Your task to perform on an android device: turn off data saver in the chrome app Image 0: 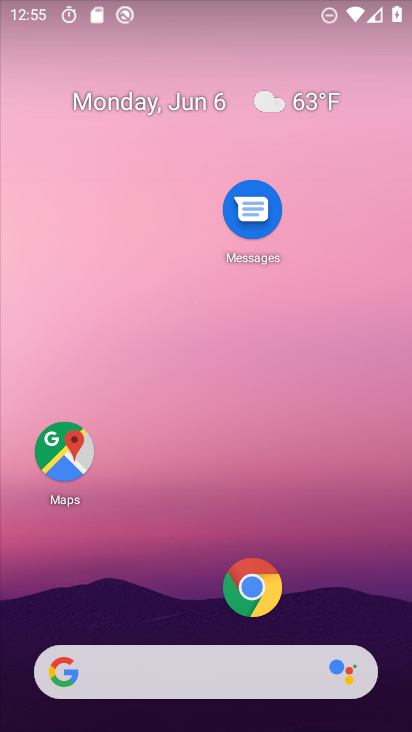
Step 0: click (250, 594)
Your task to perform on an android device: turn off data saver in the chrome app Image 1: 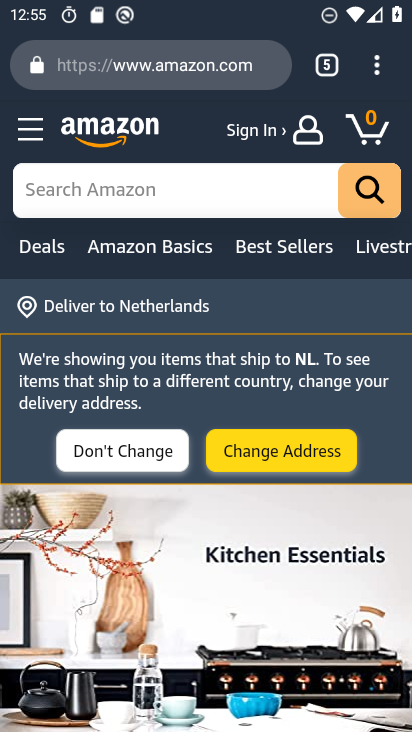
Step 1: click (390, 53)
Your task to perform on an android device: turn off data saver in the chrome app Image 2: 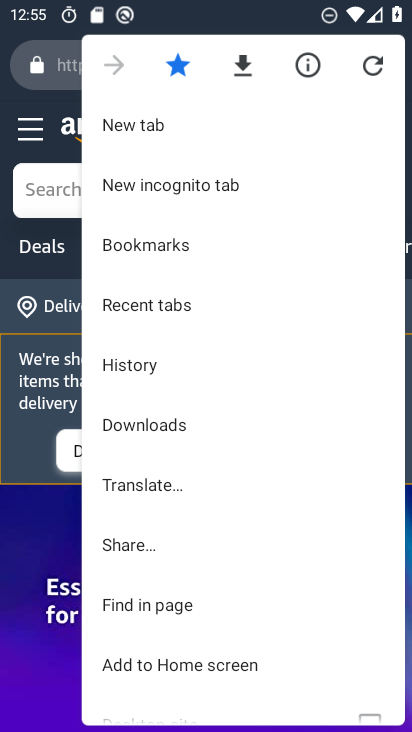
Step 2: drag from (152, 620) to (225, 48)
Your task to perform on an android device: turn off data saver in the chrome app Image 3: 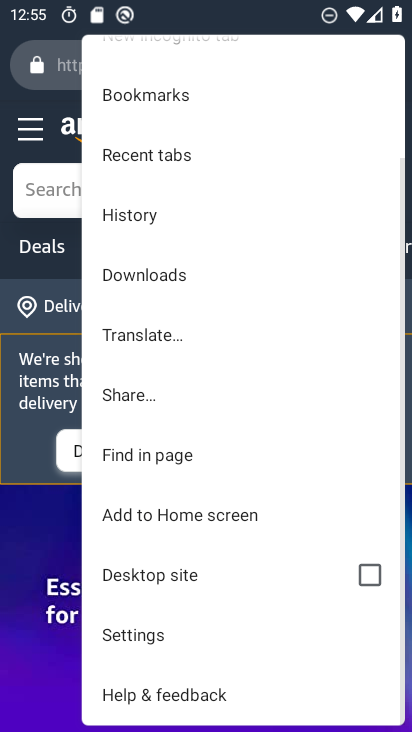
Step 3: click (122, 631)
Your task to perform on an android device: turn off data saver in the chrome app Image 4: 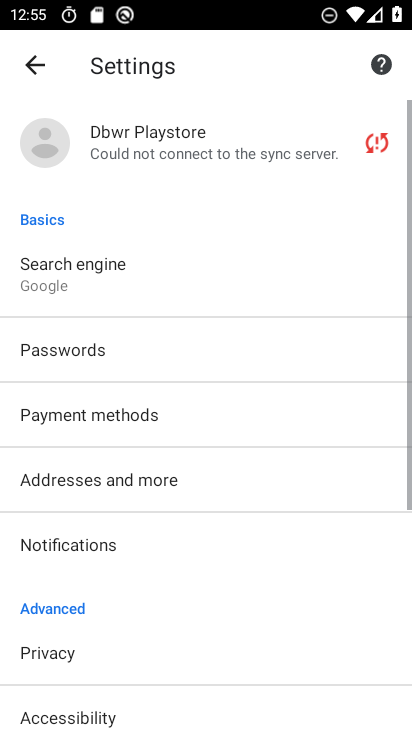
Step 4: drag from (122, 631) to (182, 123)
Your task to perform on an android device: turn off data saver in the chrome app Image 5: 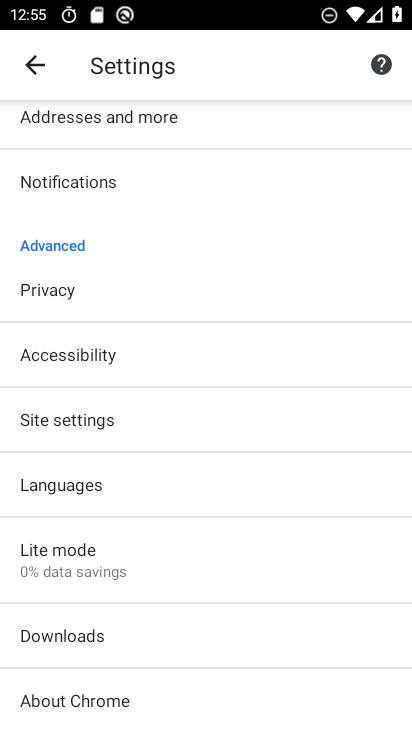
Step 5: click (188, 570)
Your task to perform on an android device: turn off data saver in the chrome app Image 6: 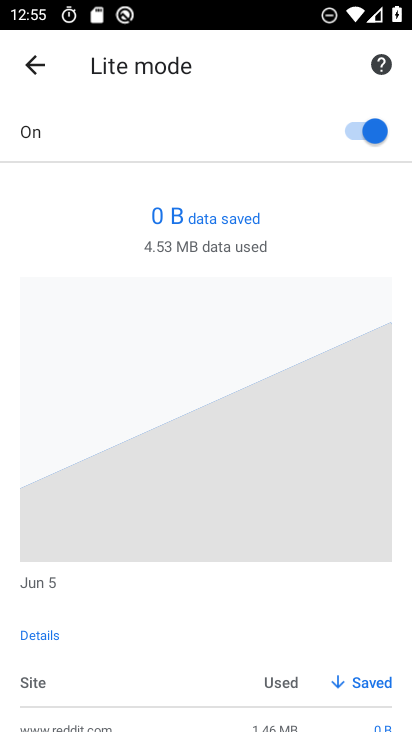
Step 6: click (353, 135)
Your task to perform on an android device: turn off data saver in the chrome app Image 7: 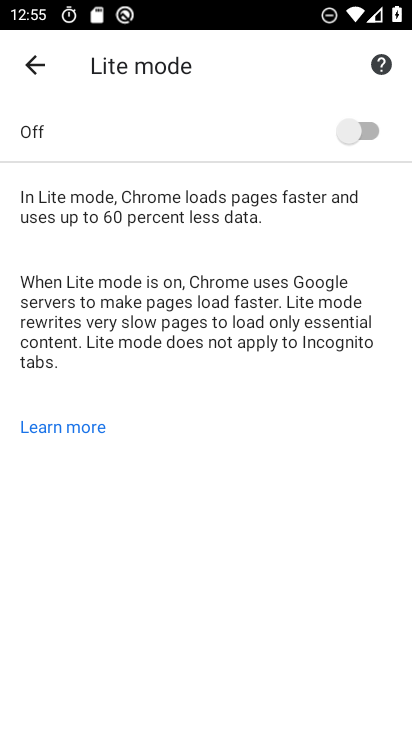
Step 7: task complete